Your task to perform on an android device: turn off location history Image 0: 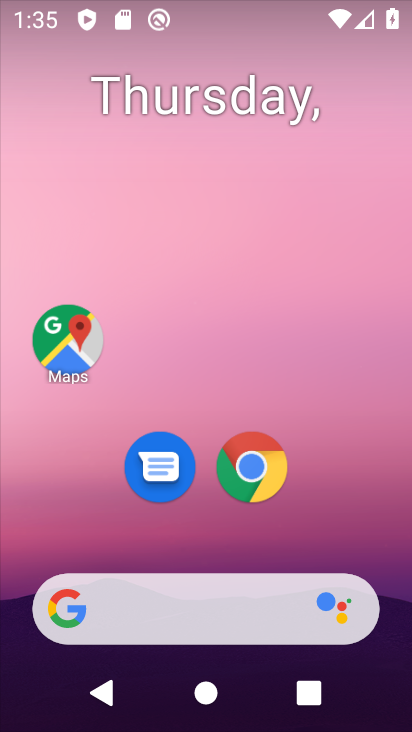
Step 0: drag from (323, 164) to (290, 20)
Your task to perform on an android device: turn off location history Image 1: 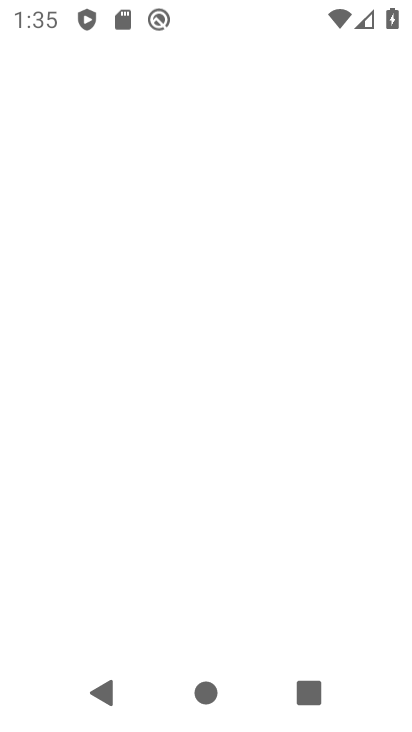
Step 1: press back button
Your task to perform on an android device: turn off location history Image 2: 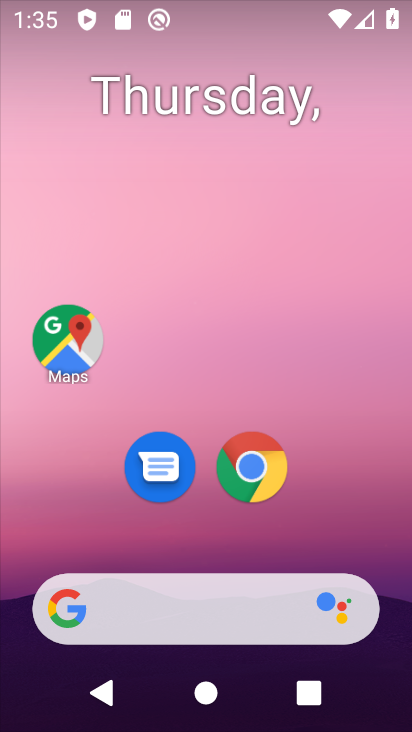
Step 2: drag from (354, 533) to (324, 138)
Your task to perform on an android device: turn off location history Image 3: 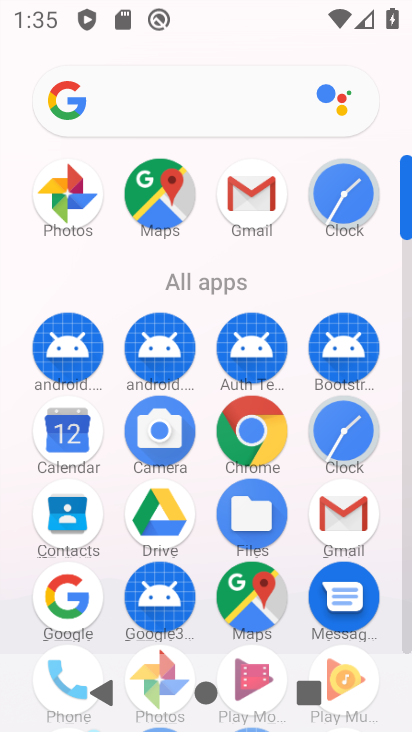
Step 3: drag from (221, 289) to (210, 118)
Your task to perform on an android device: turn off location history Image 4: 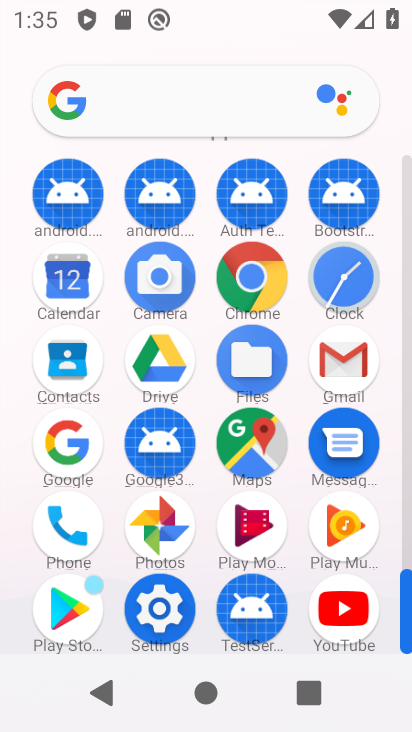
Step 4: click (173, 607)
Your task to perform on an android device: turn off location history Image 5: 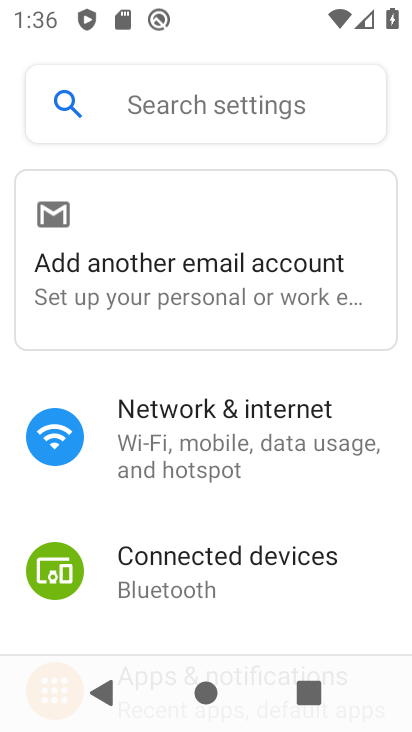
Step 5: drag from (243, 355) to (228, 123)
Your task to perform on an android device: turn off location history Image 6: 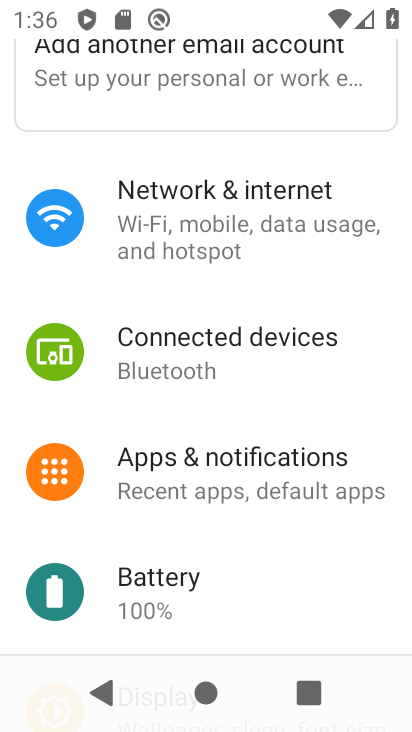
Step 6: drag from (272, 532) to (224, 201)
Your task to perform on an android device: turn off location history Image 7: 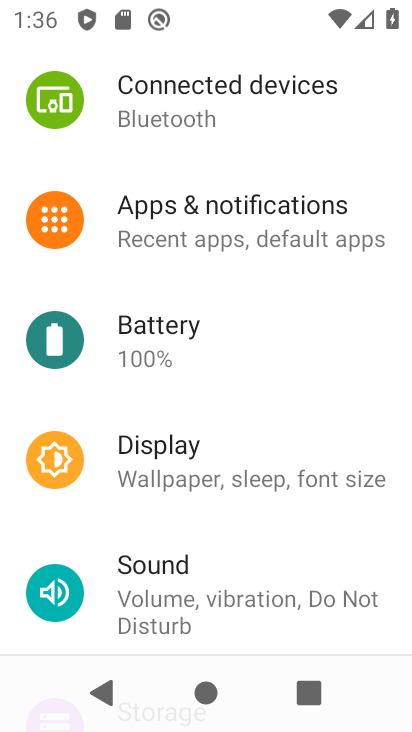
Step 7: drag from (260, 526) to (231, 98)
Your task to perform on an android device: turn off location history Image 8: 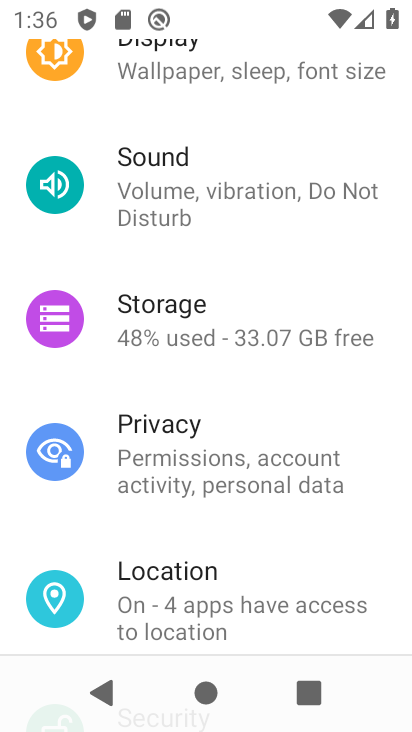
Step 8: click (216, 574)
Your task to perform on an android device: turn off location history Image 9: 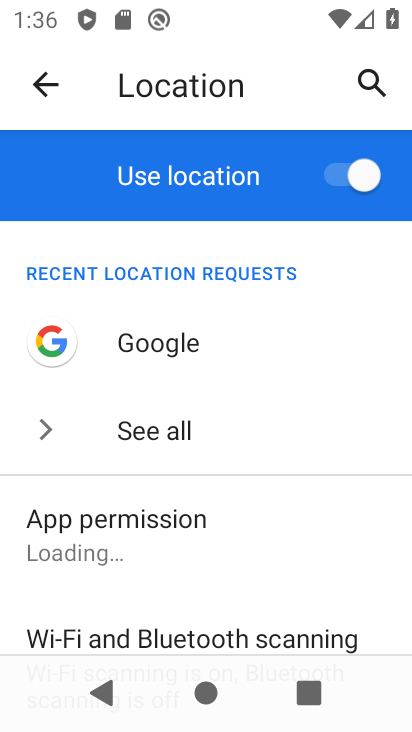
Step 9: drag from (255, 590) to (234, 330)
Your task to perform on an android device: turn off location history Image 10: 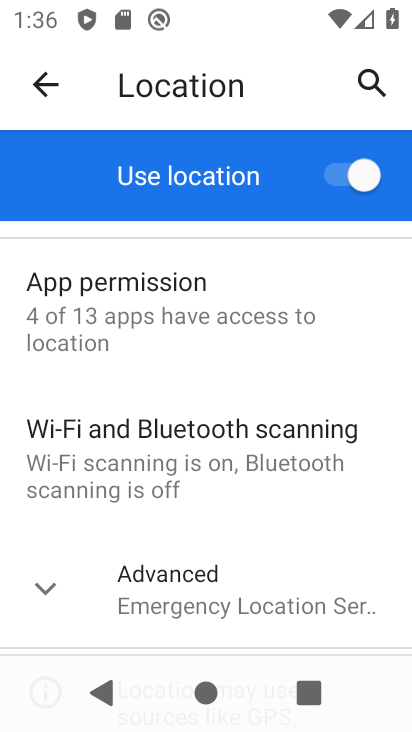
Step 10: click (245, 578)
Your task to perform on an android device: turn off location history Image 11: 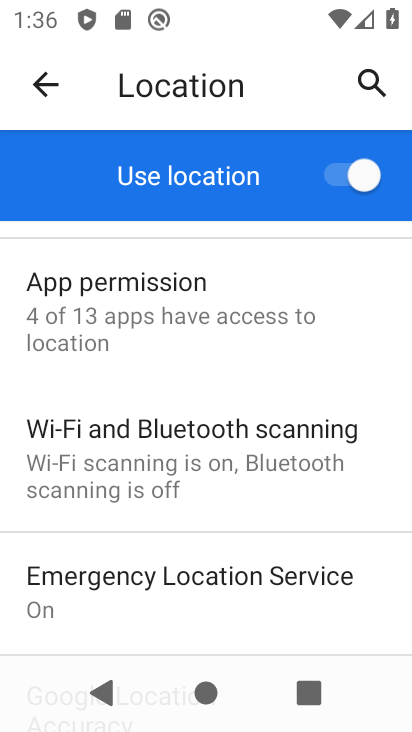
Step 11: drag from (200, 537) to (195, 317)
Your task to perform on an android device: turn off location history Image 12: 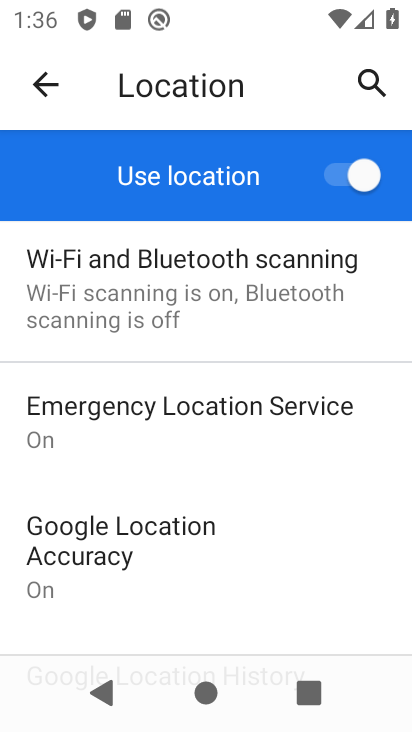
Step 12: drag from (228, 576) to (217, 363)
Your task to perform on an android device: turn off location history Image 13: 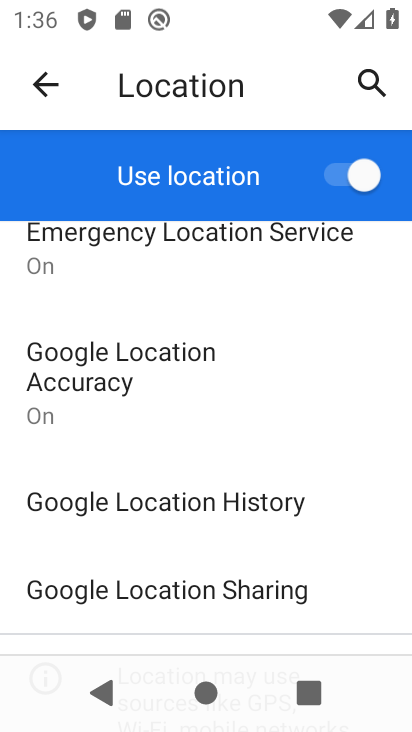
Step 13: click (227, 511)
Your task to perform on an android device: turn off location history Image 14: 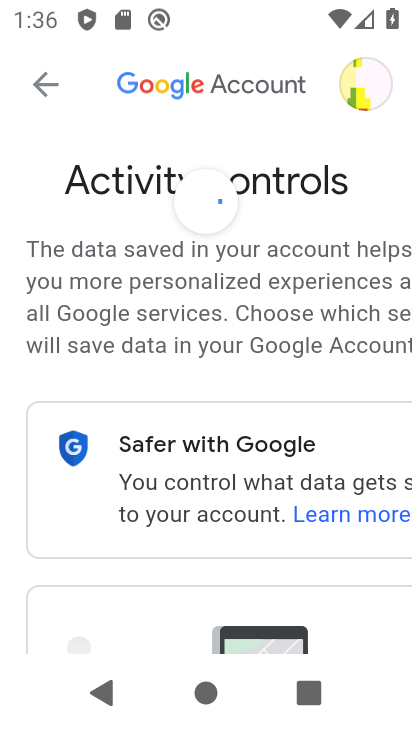
Step 14: drag from (246, 568) to (220, 273)
Your task to perform on an android device: turn off location history Image 15: 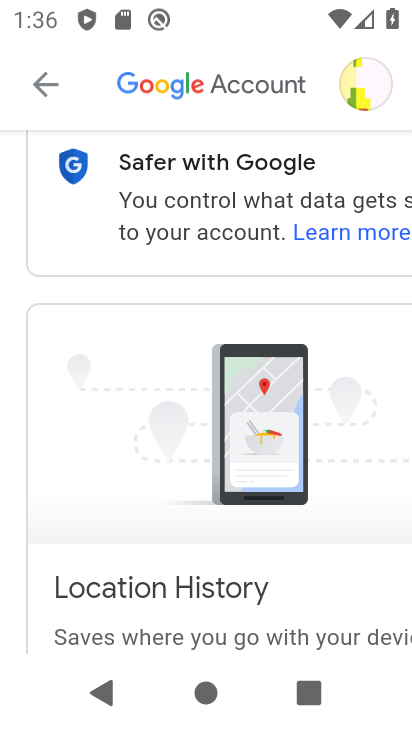
Step 15: drag from (240, 516) to (202, 197)
Your task to perform on an android device: turn off location history Image 16: 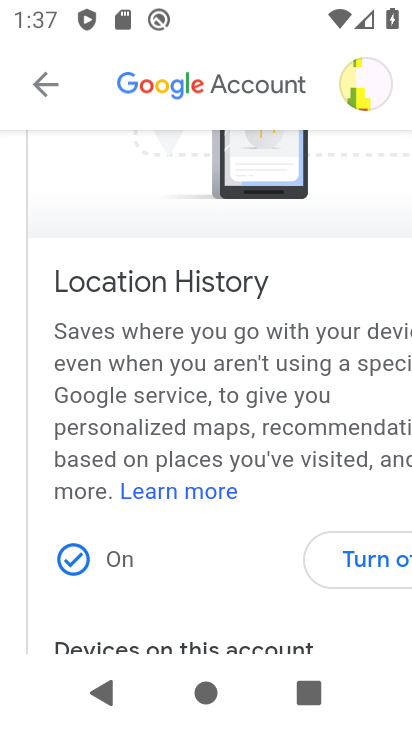
Step 16: click (368, 554)
Your task to perform on an android device: turn off location history Image 17: 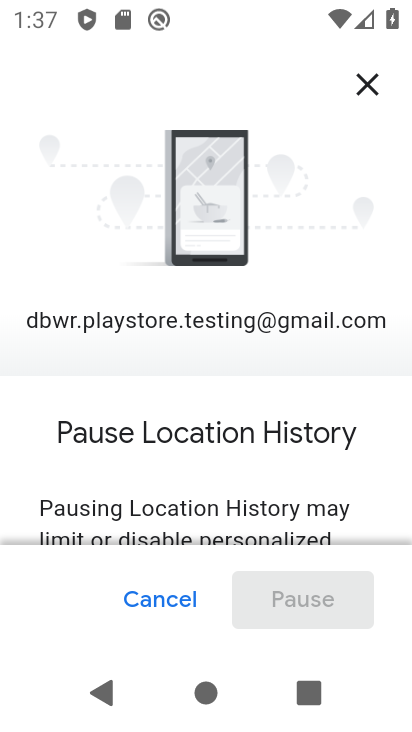
Step 17: drag from (320, 514) to (290, 233)
Your task to perform on an android device: turn off location history Image 18: 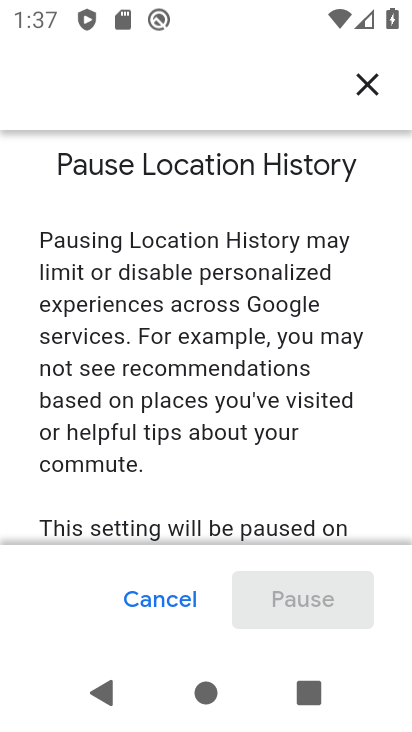
Step 18: drag from (325, 470) to (265, 117)
Your task to perform on an android device: turn off location history Image 19: 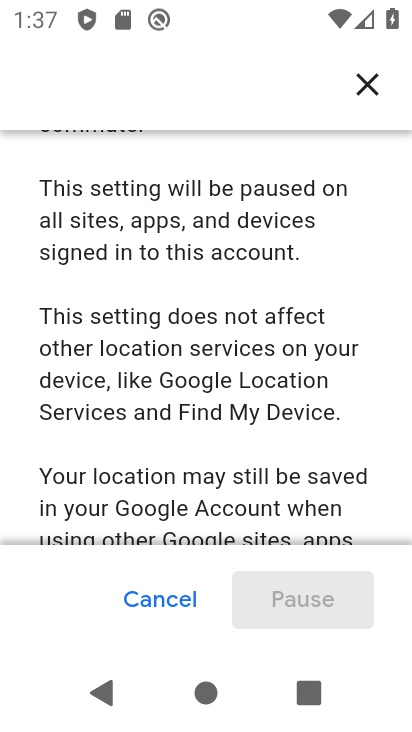
Step 19: drag from (292, 443) to (263, 150)
Your task to perform on an android device: turn off location history Image 20: 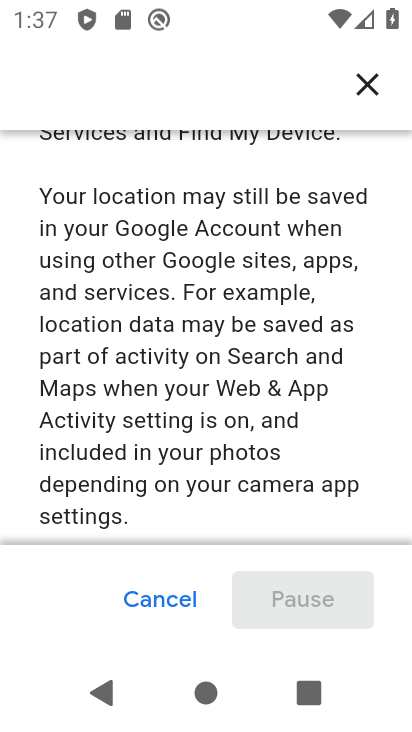
Step 20: drag from (335, 502) to (305, 177)
Your task to perform on an android device: turn off location history Image 21: 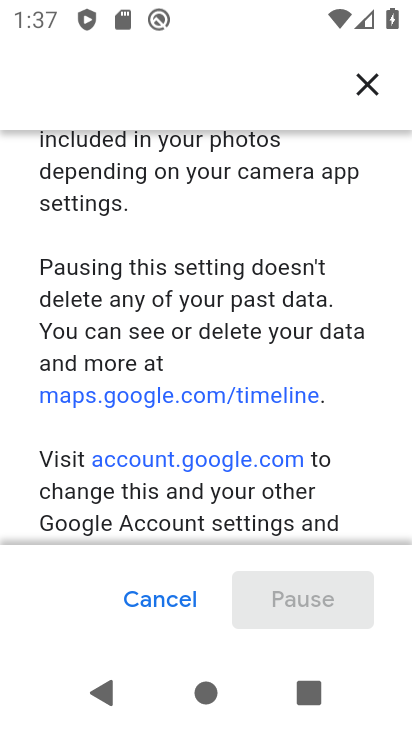
Step 21: drag from (359, 465) to (324, 176)
Your task to perform on an android device: turn off location history Image 22: 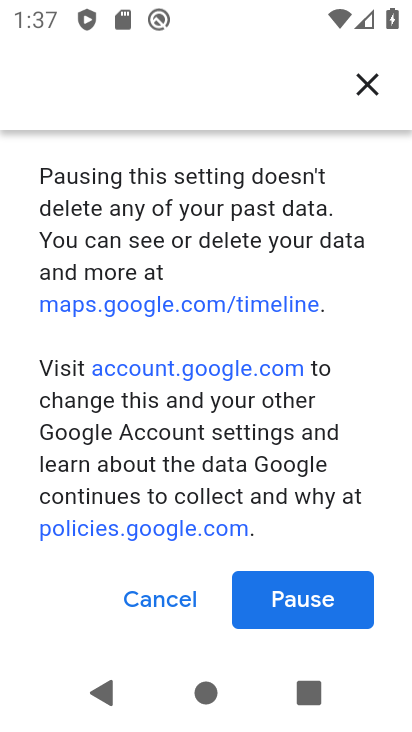
Step 22: click (305, 588)
Your task to perform on an android device: turn off location history Image 23: 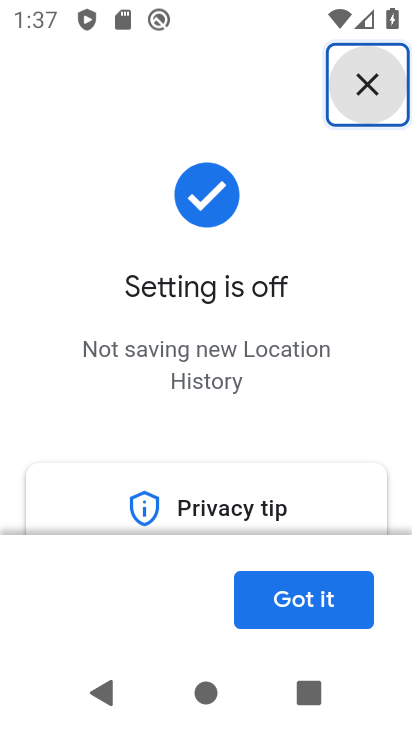
Step 23: click (324, 598)
Your task to perform on an android device: turn off location history Image 24: 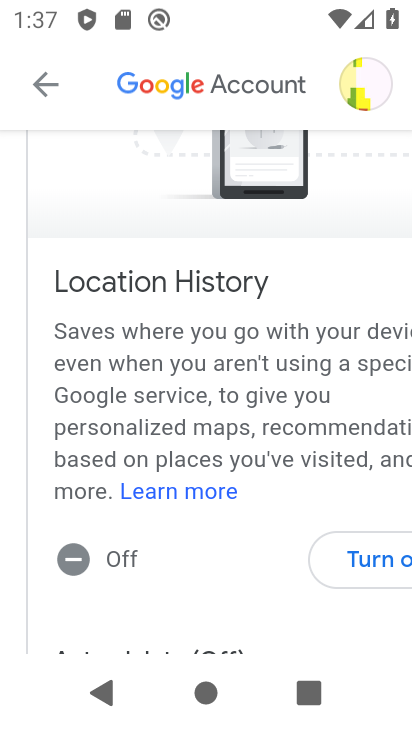
Step 24: task complete